Your task to perform on an android device: Open display settings Image 0: 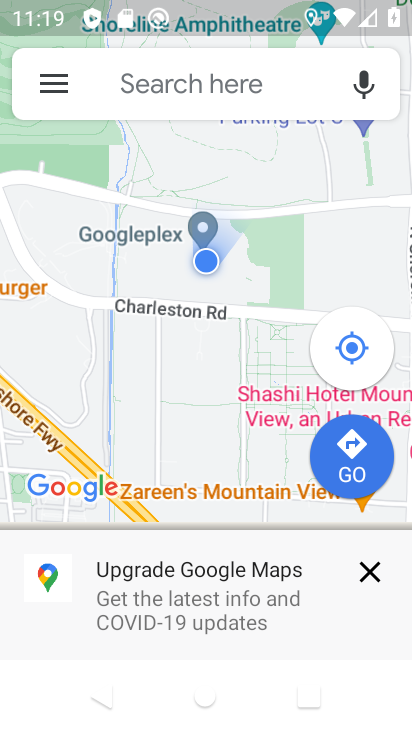
Step 0: press home button
Your task to perform on an android device: Open display settings Image 1: 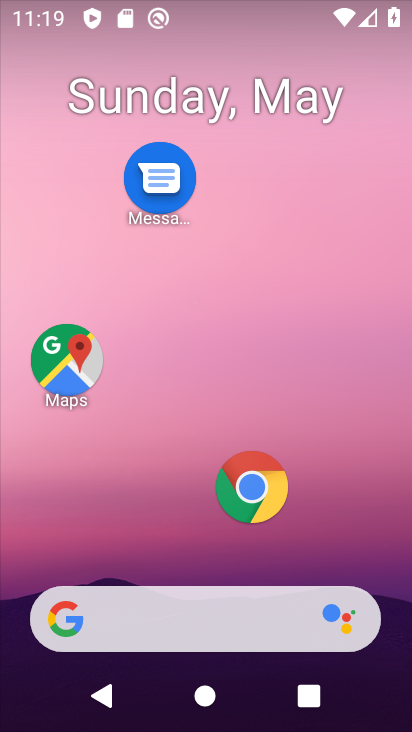
Step 1: drag from (200, 552) to (211, 0)
Your task to perform on an android device: Open display settings Image 2: 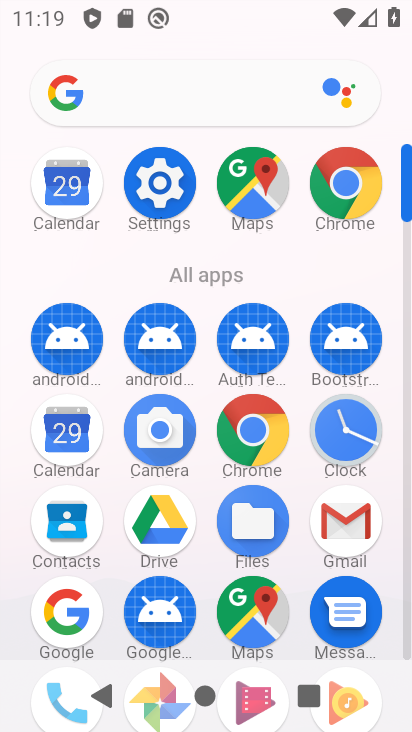
Step 2: click (157, 173)
Your task to perform on an android device: Open display settings Image 3: 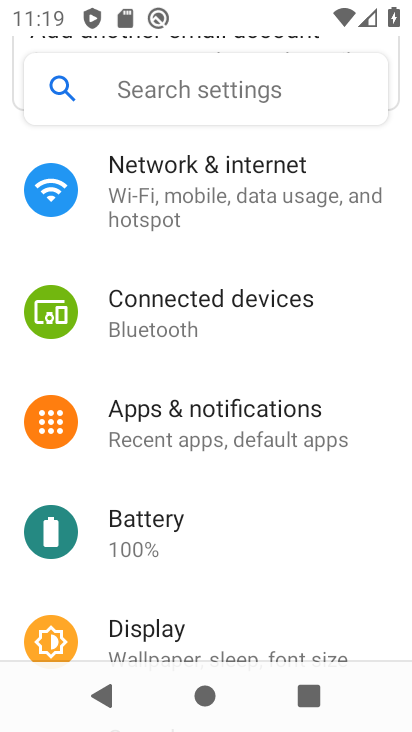
Step 3: click (249, 641)
Your task to perform on an android device: Open display settings Image 4: 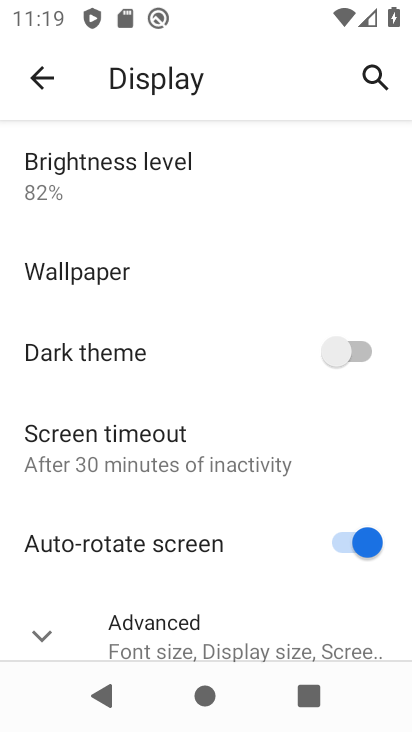
Step 4: task complete